Your task to perform on an android device: Open Google Chrome Image 0: 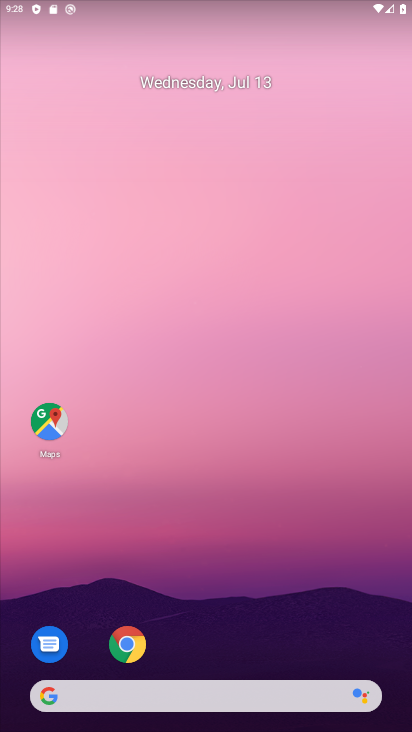
Step 0: drag from (168, 668) to (276, 57)
Your task to perform on an android device: Open Google Chrome Image 1: 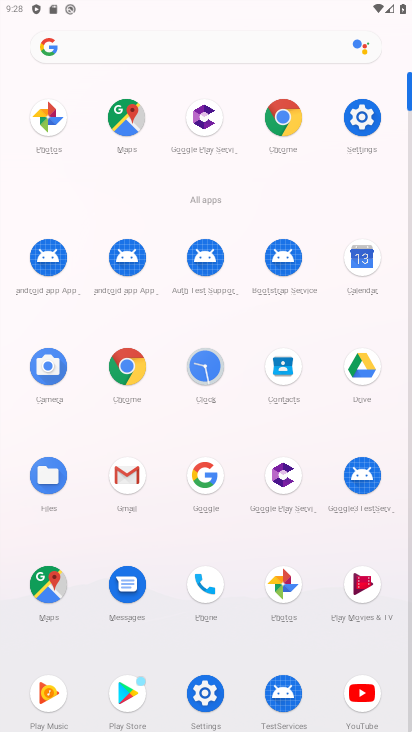
Step 1: click (129, 382)
Your task to perform on an android device: Open Google Chrome Image 2: 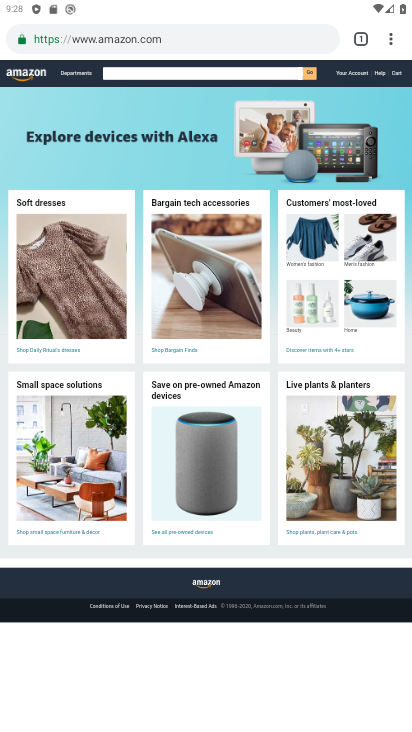
Step 2: task complete